Your task to perform on an android device: find snoozed emails in the gmail app Image 0: 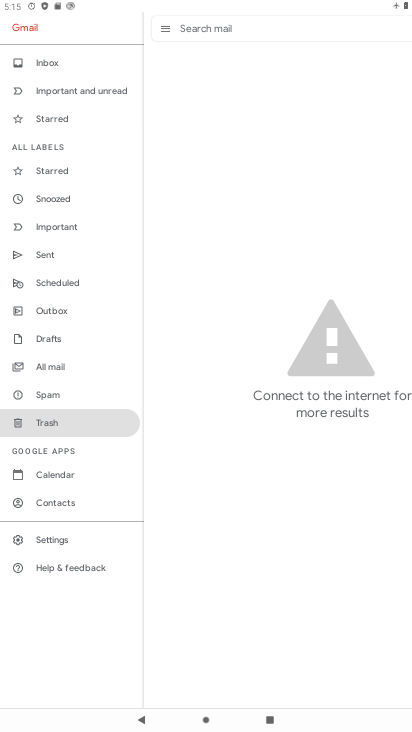
Step 0: press home button
Your task to perform on an android device: find snoozed emails in the gmail app Image 1: 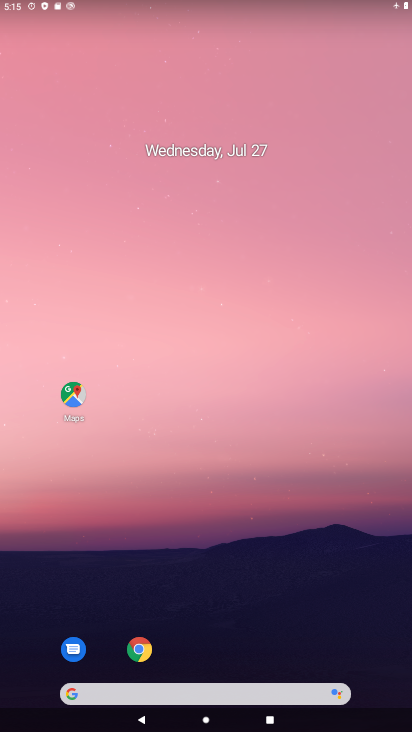
Step 1: drag from (186, 695) to (206, 65)
Your task to perform on an android device: find snoozed emails in the gmail app Image 2: 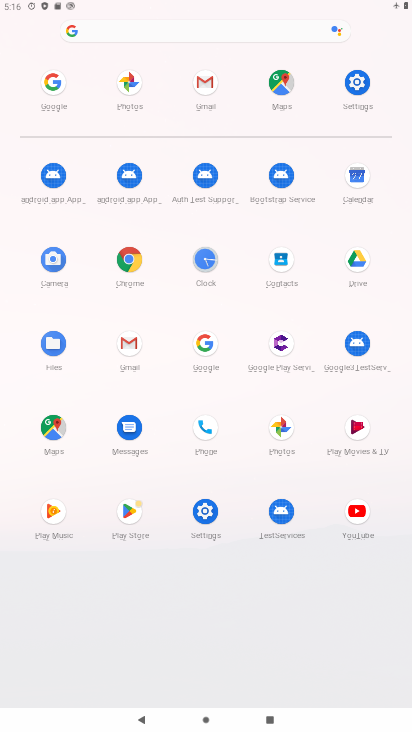
Step 2: click (205, 83)
Your task to perform on an android device: find snoozed emails in the gmail app Image 3: 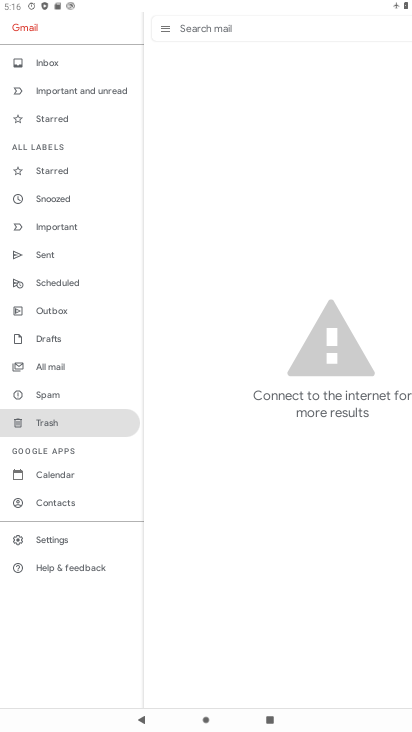
Step 3: click (50, 87)
Your task to perform on an android device: find snoozed emails in the gmail app Image 4: 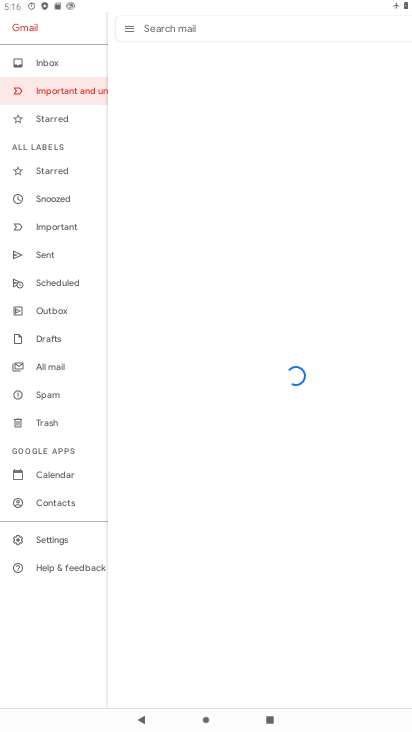
Step 4: click (57, 129)
Your task to perform on an android device: find snoozed emails in the gmail app Image 5: 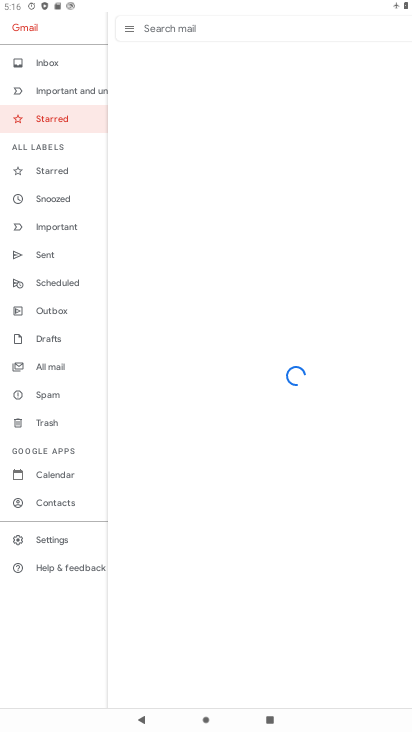
Step 5: click (54, 166)
Your task to perform on an android device: find snoozed emails in the gmail app Image 6: 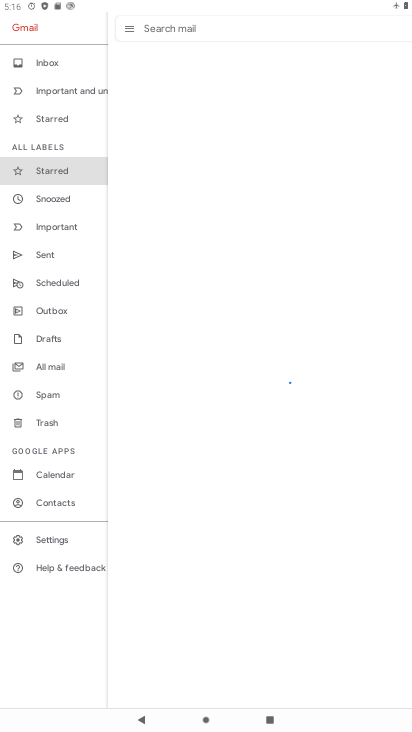
Step 6: click (60, 201)
Your task to perform on an android device: find snoozed emails in the gmail app Image 7: 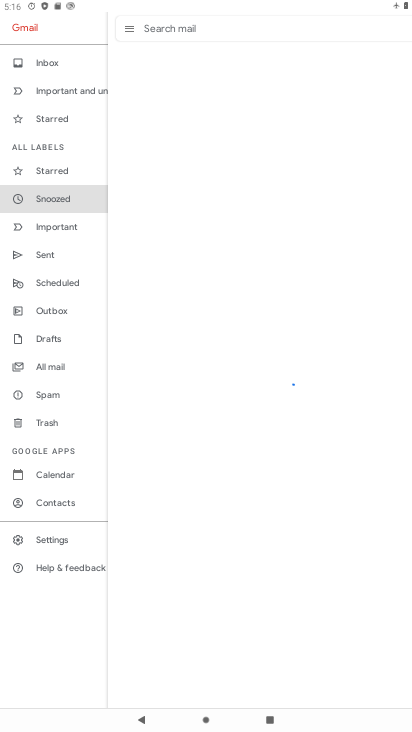
Step 7: click (57, 226)
Your task to perform on an android device: find snoozed emails in the gmail app Image 8: 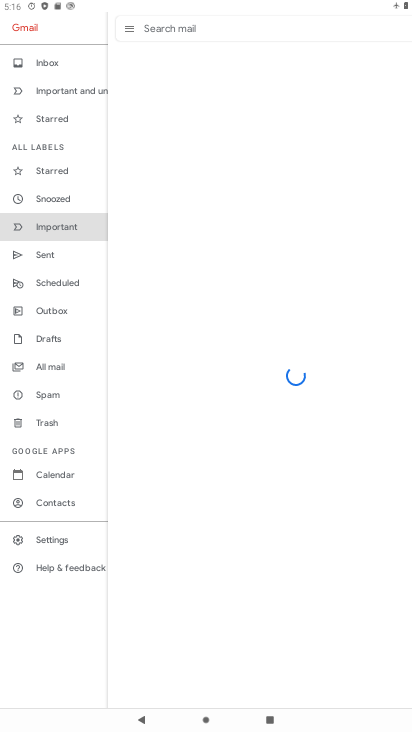
Step 8: click (54, 250)
Your task to perform on an android device: find snoozed emails in the gmail app Image 9: 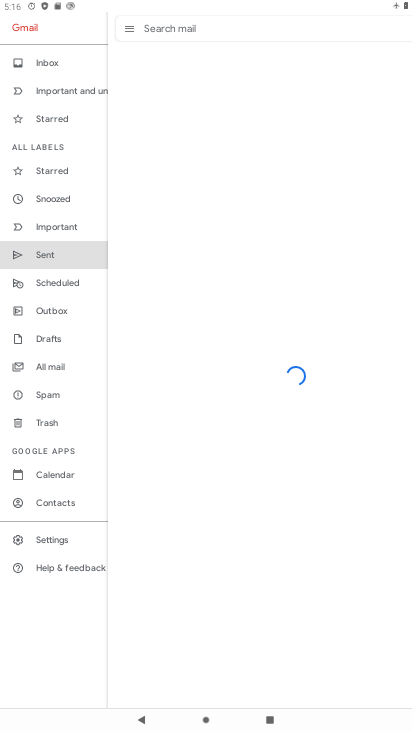
Step 9: click (48, 280)
Your task to perform on an android device: find snoozed emails in the gmail app Image 10: 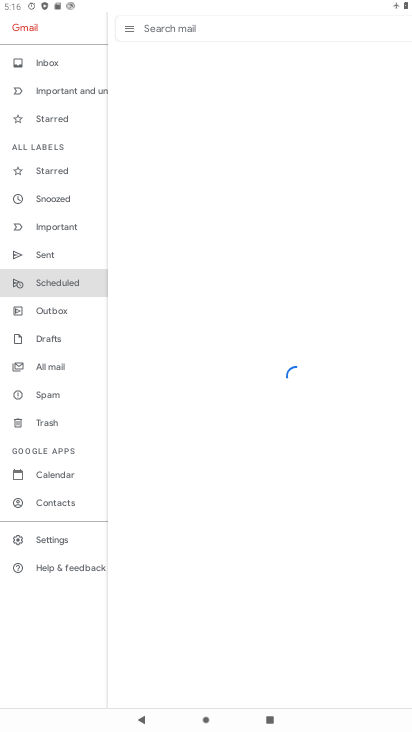
Step 10: click (46, 306)
Your task to perform on an android device: find snoozed emails in the gmail app Image 11: 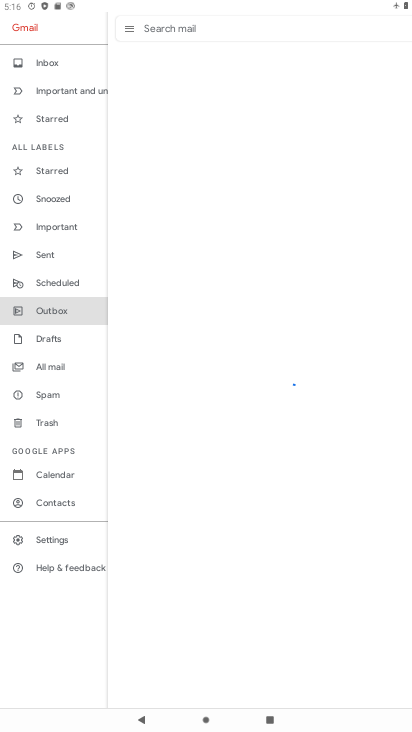
Step 11: click (48, 342)
Your task to perform on an android device: find snoozed emails in the gmail app Image 12: 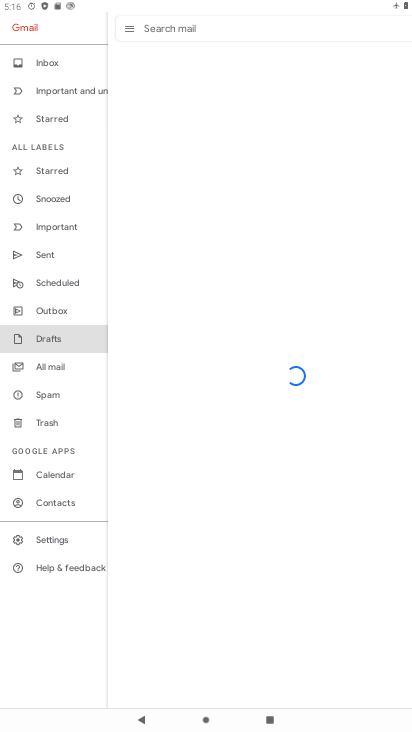
Step 12: click (53, 373)
Your task to perform on an android device: find snoozed emails in the gmail app Image 13: 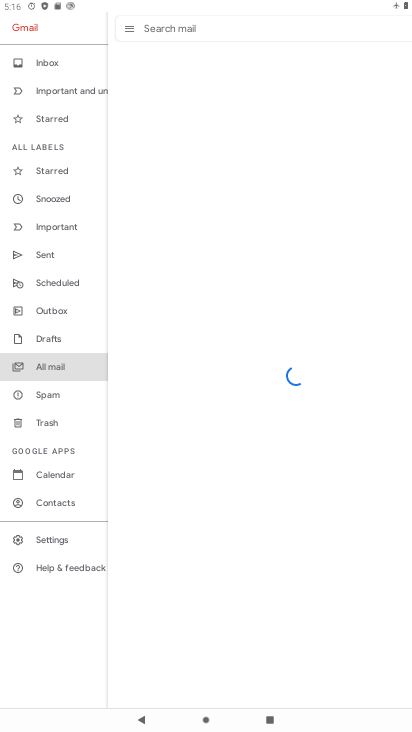
Step 13: click (55, 398)
Your task to perform on an android device: find snoozed emails in the gmail app Image 14: 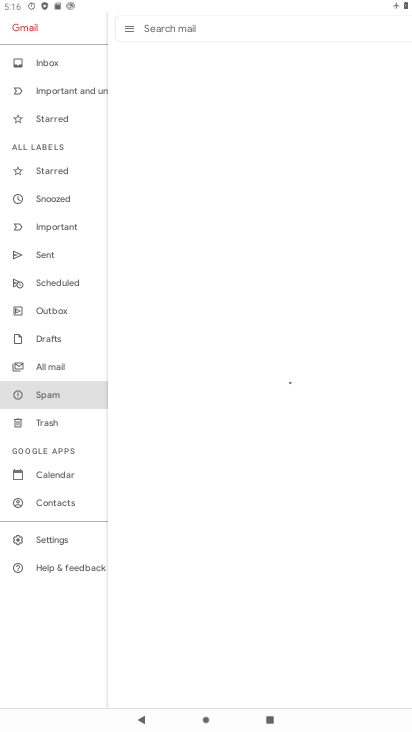
Step 14: click (49, 413)
Your task to perform on an android device: find snoozed emails in the gmail app Image 15: 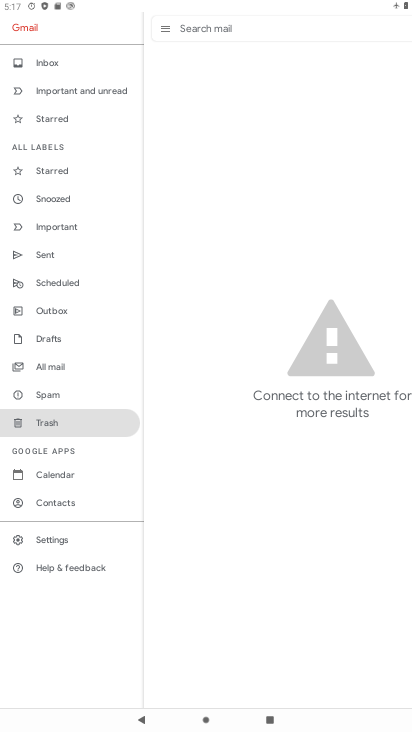
Step 15: task complete